Your task to perform on an android device: find photos in the google photos app Image 0: 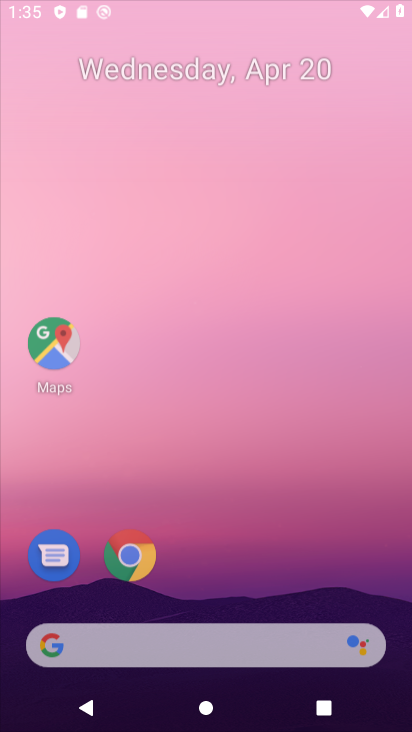
Step 0: drag from (187, 591) to (335, 147)
Your task to perform on an android device: find photos in the google photos app Image 1: 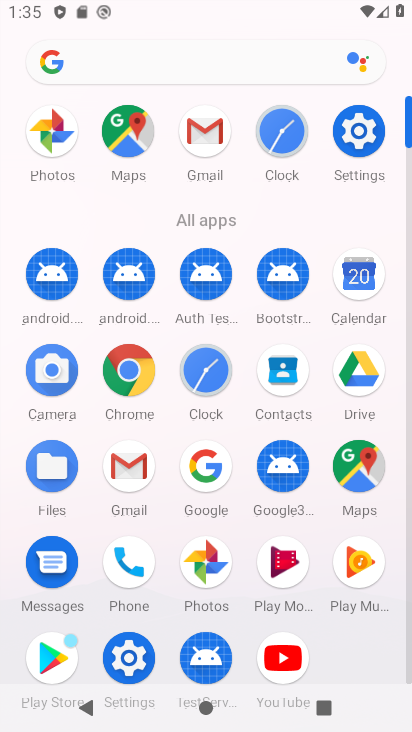
Step 1: click (198, 552)
Your task to perform on an android device: find photos in the google photos app Image 2: 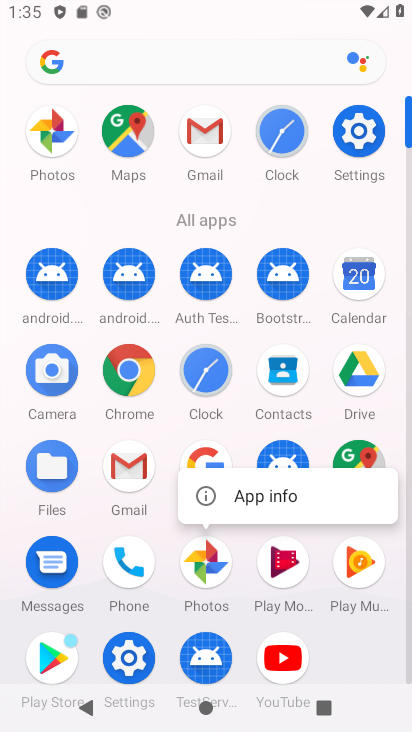
Step 2: click (267, 493)
Your task to perform on an android device: find photos in the google photos app Image 3: 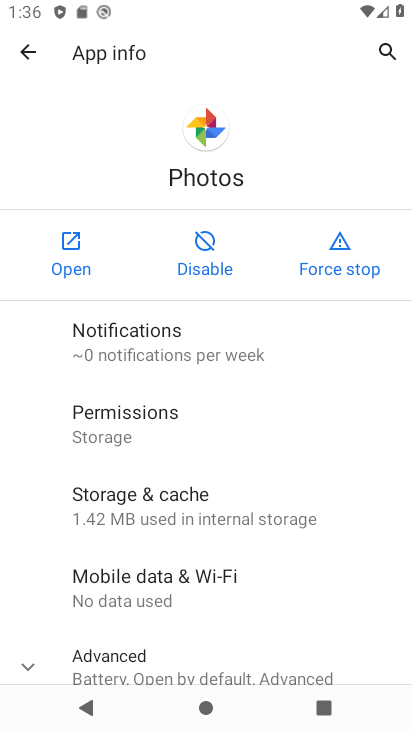
Step 3: click (71, 272)
Your task to perform on an android device: find photos in the google photos app Image 4: 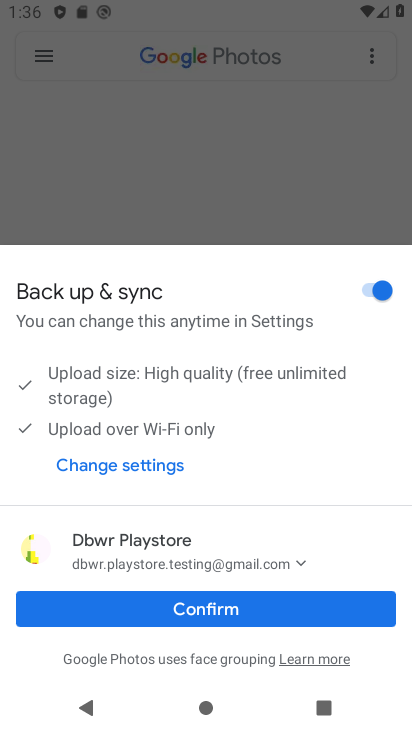
Step 4: click (236, 601)
Your task to perform on an android device: find photos in the google photos app Image 5: 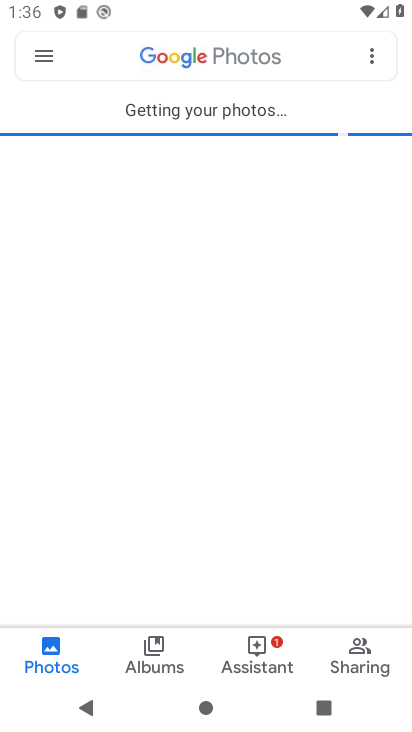
Step 5: drag from (246, 496) to (358, 235)
Your task to perform on an android device: find photos in the google photos app Image 6: 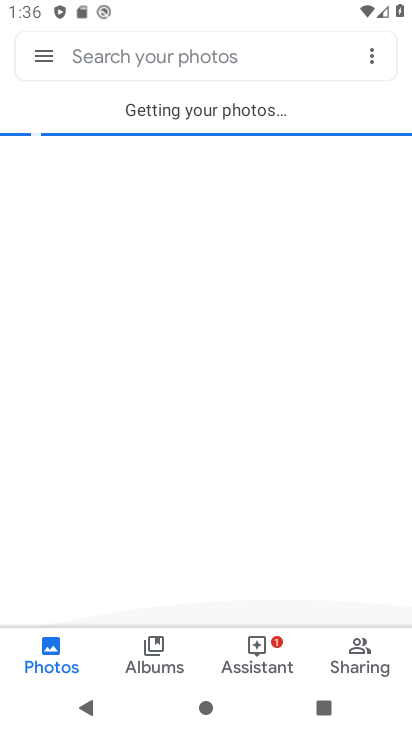
Step 6: click (178, 638)
Your task to perform on an android device: find photos in the google photos app Image 7: 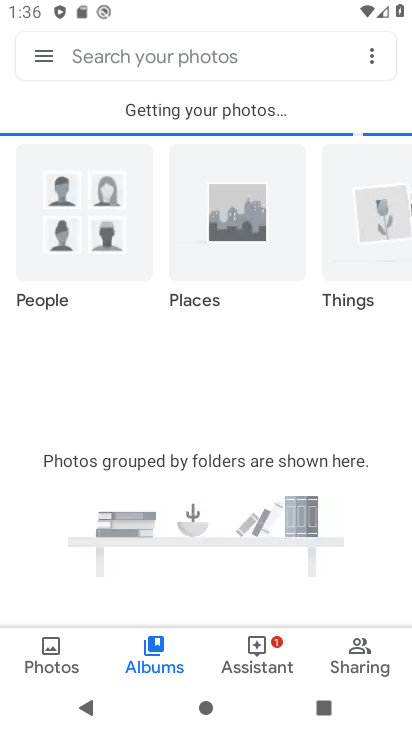
Step 7: click (11, 655)
Your task to perform on an android device: find photos in the google photos app Image 8: 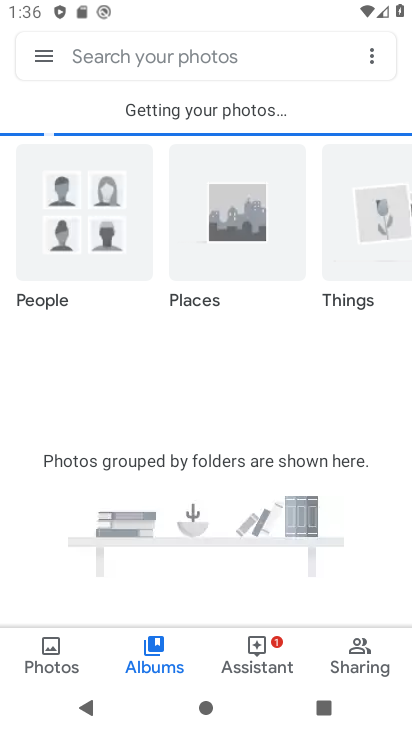
Step 8: click (49, 644)
Your task to perform on an android device: find photos in the google photos app Image 9: 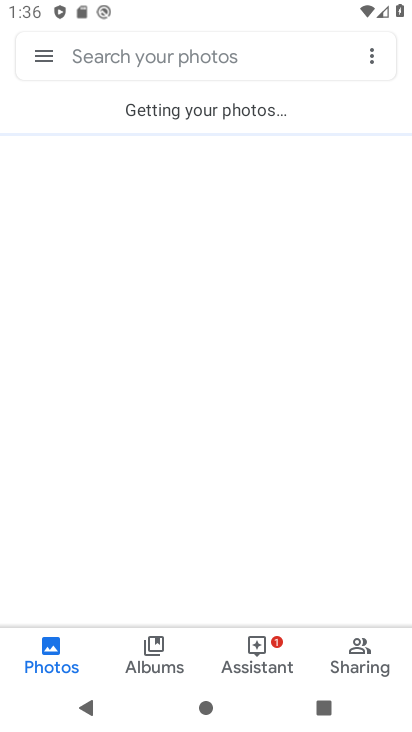
Step 9: click (35, 49)
Your task to perform on an android device: find photos in the google photos app Image 10: 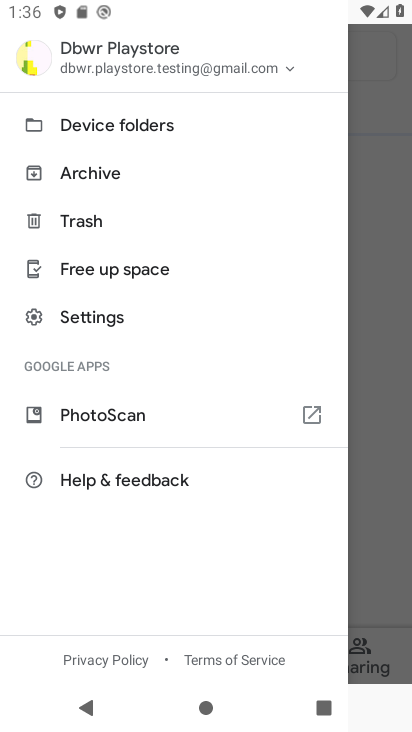
Step 10: click (382, 265)
Your task to perform on an android device: find photos in the google photos app Image 11: 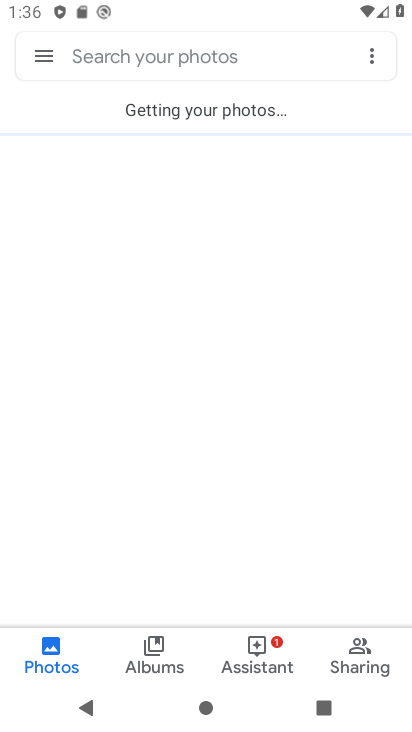
Step 11: drag from (190, 277) to (217, 350)
Your task to perform on an android device: find photos in the google photos app Image 12: 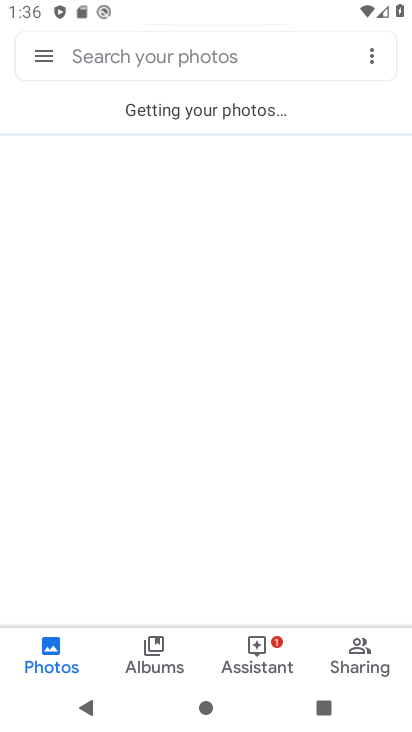
Step 12: click (128, 287)
Your task to perform on an android device: find photos in the google photos app Image 13: 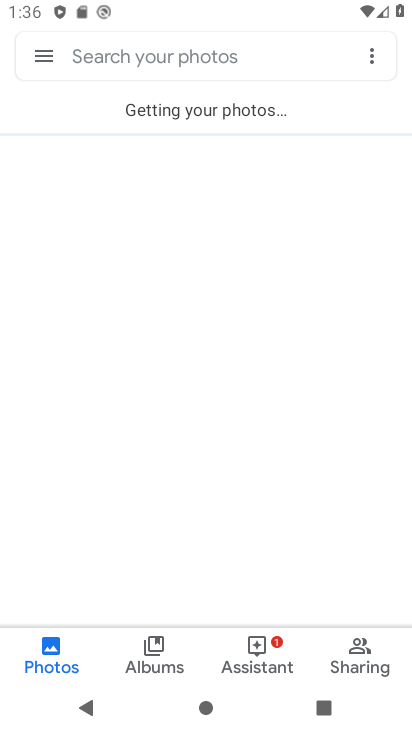
Step 13: drag from (184, 443) to (260, 151)
Your task to perform on an android device: find photos in the google photos app Image 14: 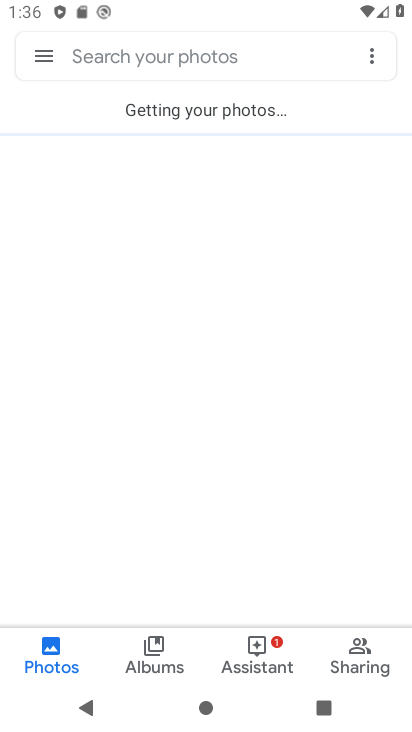
Step 14: click (366, 55)
Your task to perform on an android device: find photos in the google photos app Image 15: 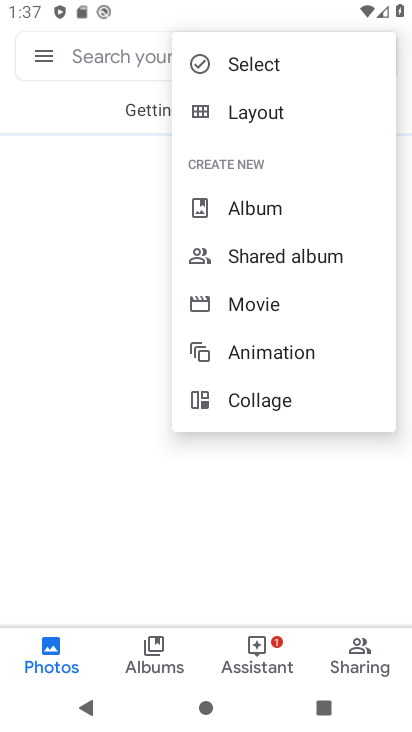
Step 15: drag from (242, 320) to (292, 91)
Your task to perform on an android device: find photos in the google photos app Image 16: 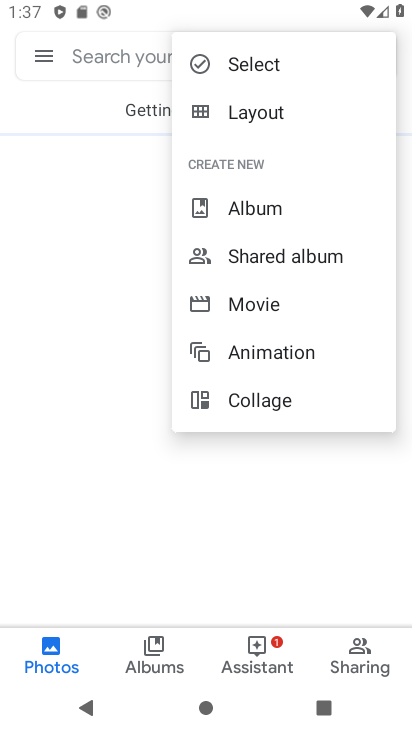
Step 16: click (133, 152)
Your task to perform on an android device: find photos in the google photos app Image 17: 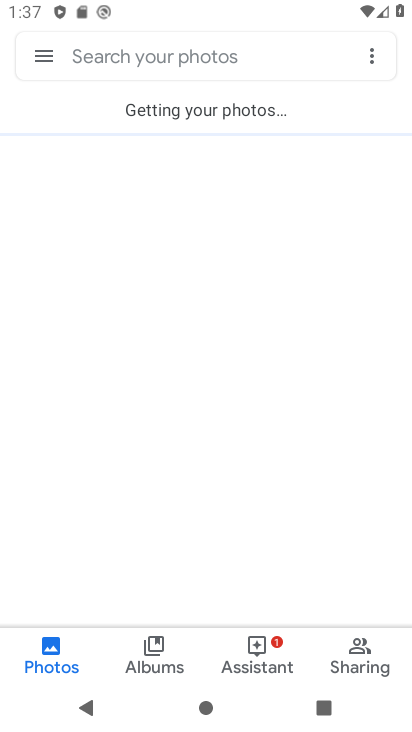
Step 17: task complete